Your task to perform on an android device: turn off wifi Image 0: 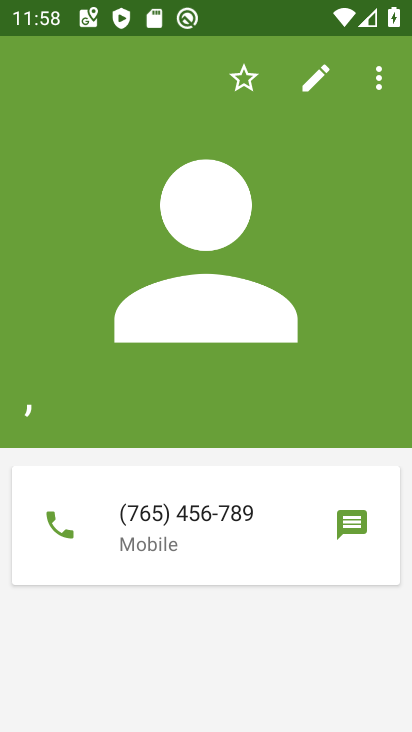
Step 0: press home button
Your task to perform on an android device: turn off wifi Image 1: 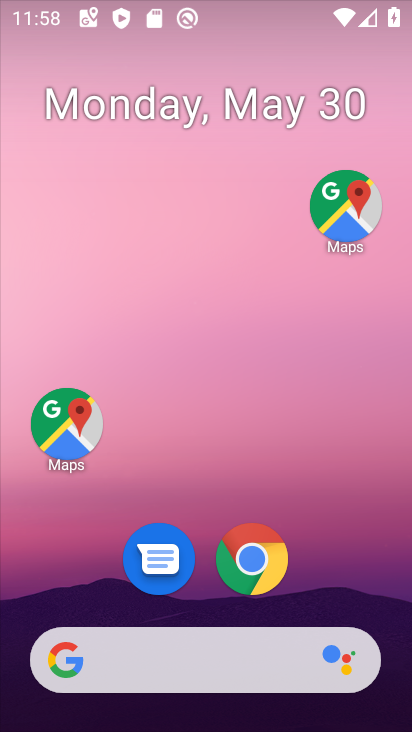
Step 1: drag from (345, 472) to (280, 69)
Your task to perform on an android device: turn off wifi Image 2: 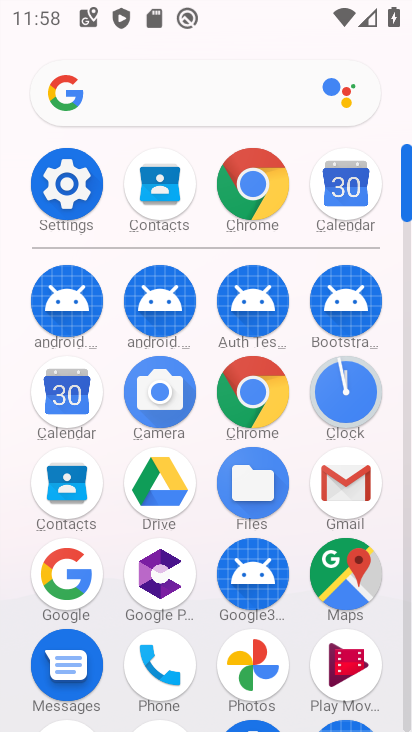
Step 2: click (83, 192)
Your task to perform on an android device: turn off wifi Image 3: 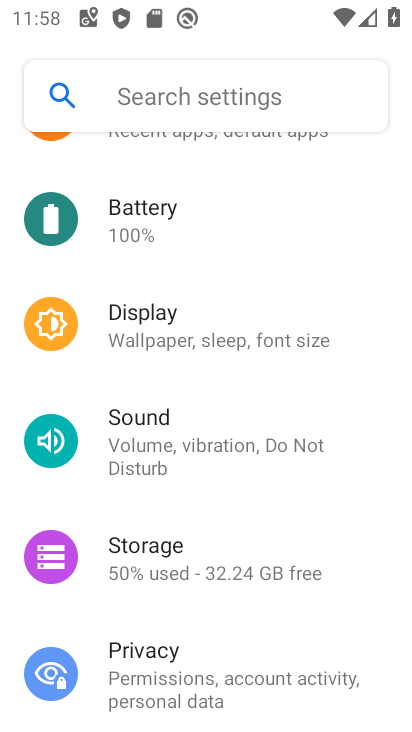
Step 3: drag from (245, 207) to (340, 691)
Your task to perform on an android device: turn off wifi Image 4: 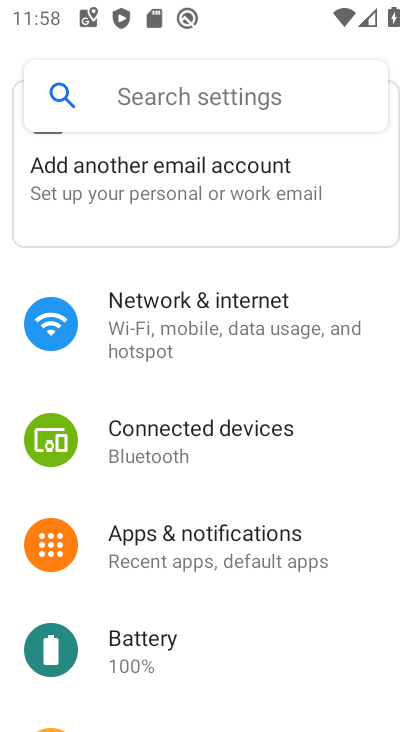
Step 4: click (210, 342)
Your task to perform on an android device: turn off wifi Image 5: 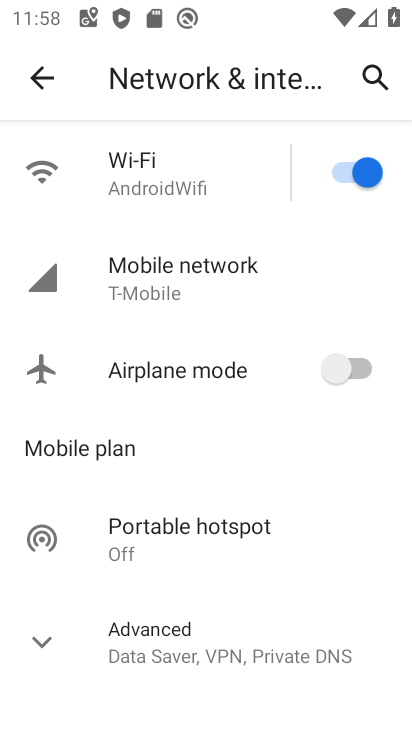
Step 5: click (350, 167)
Your task to perform on an android device: turn off wifi Image 6: 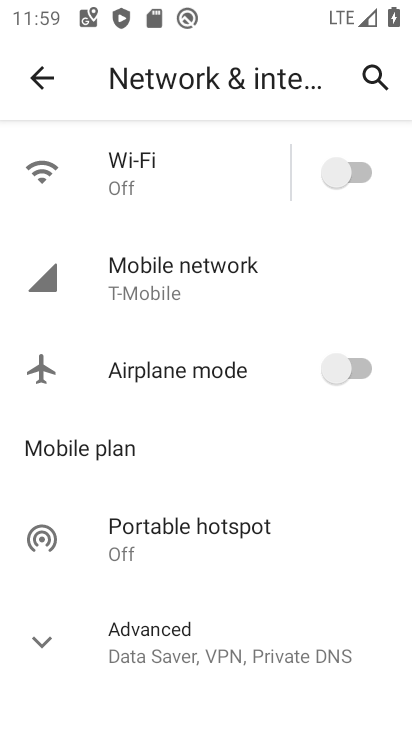
Step 6: task complete